Your task to perform on an android device: Open location settings Image 0: 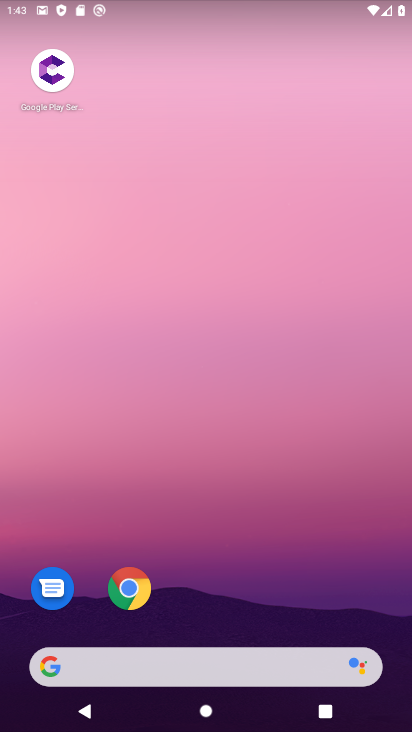
Step 0: drag from (246, 614) to (189, 196)
Your task to perform on an android device: Open location settings Image 1: 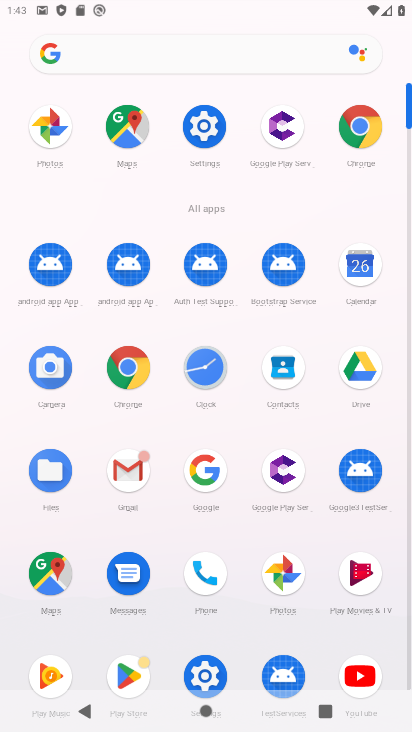
Step 1: click (206, 134)
Your task to perform on an android device: Open location settings Image 2: 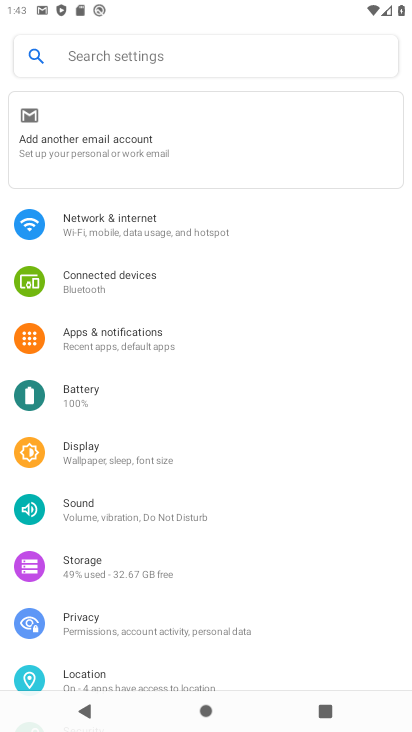
Step 2: drag from (196, 587) to (174, 296)
Your task to perform on an android device: Open location settings Image 3: 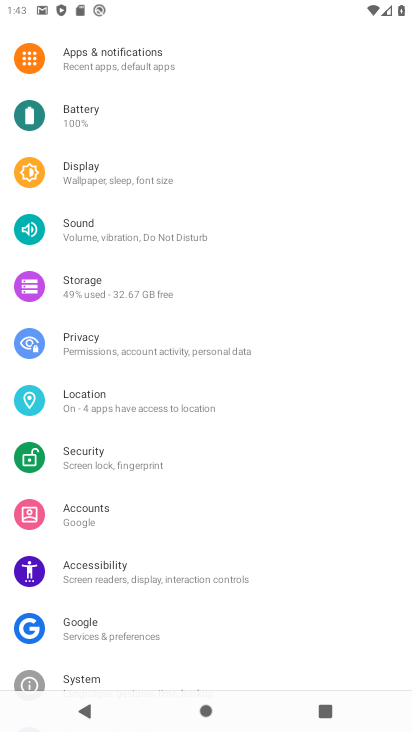
Step 3: click (132, 394)
Your task to perform on an android device: Open location settings Image 4: 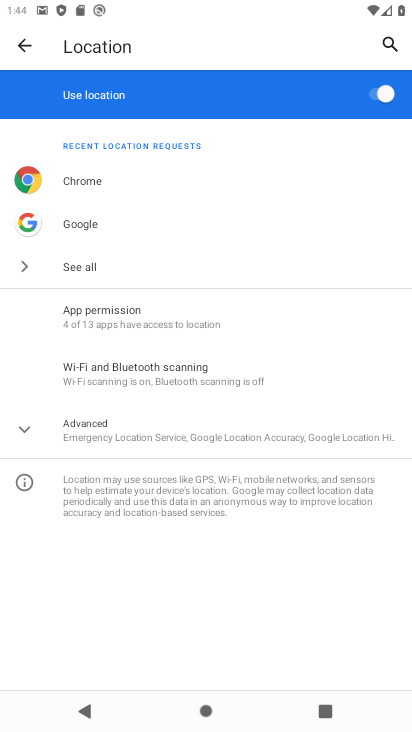
Step 4: task complete